Your task to perform on an android device: see sites visited before in the chrome app Image 0: 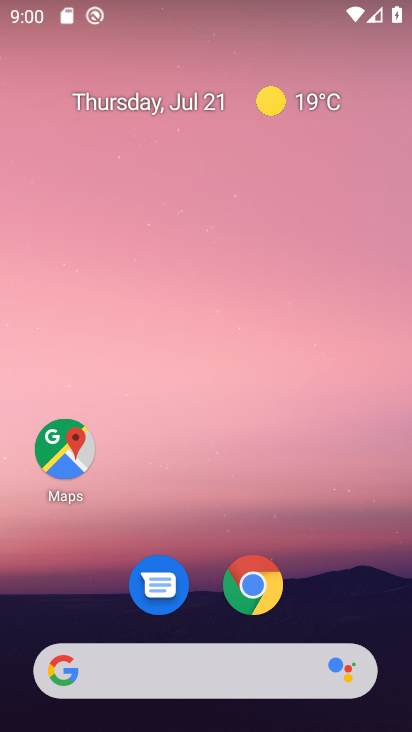
Step 0: click (259, 582)
Your task to perform on an android device: see sites visited before in the chrome app Image 1: 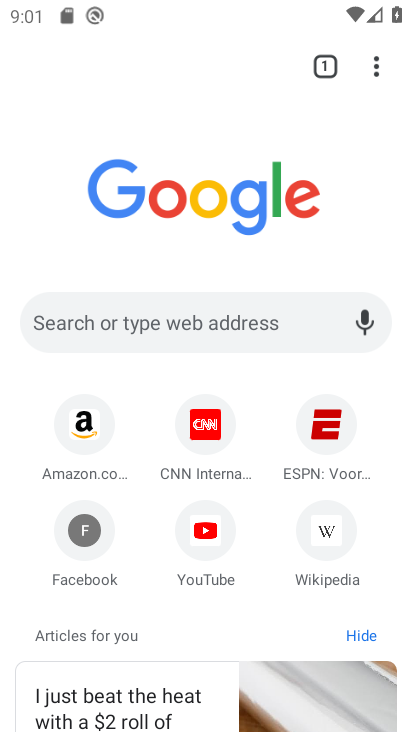
Step 1: click (376, 69)
Your task to perform on an android device: see sites visited before in the chrome app Image 2: 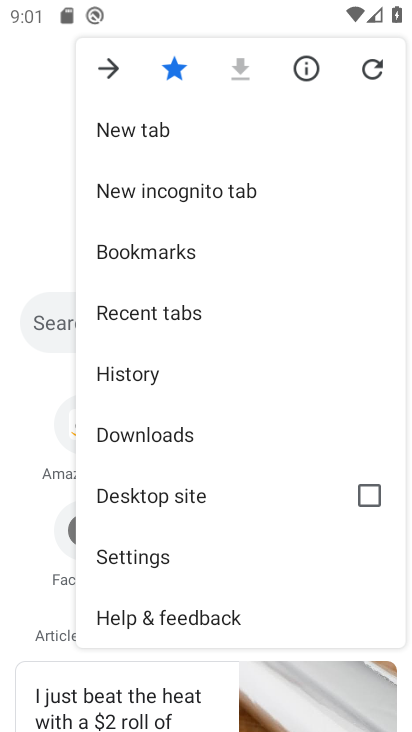
Step 2: click (186, 313)
Your task to perform on an android device: see sites visited before in the chrome app Image 3: 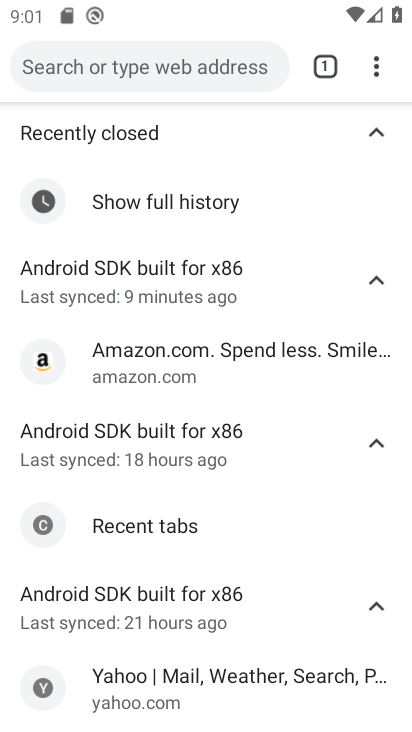
Step 3: task complete